Your task to perform on an android device: Search for the new Nike Air Max 270 on Nike.com Image 0: 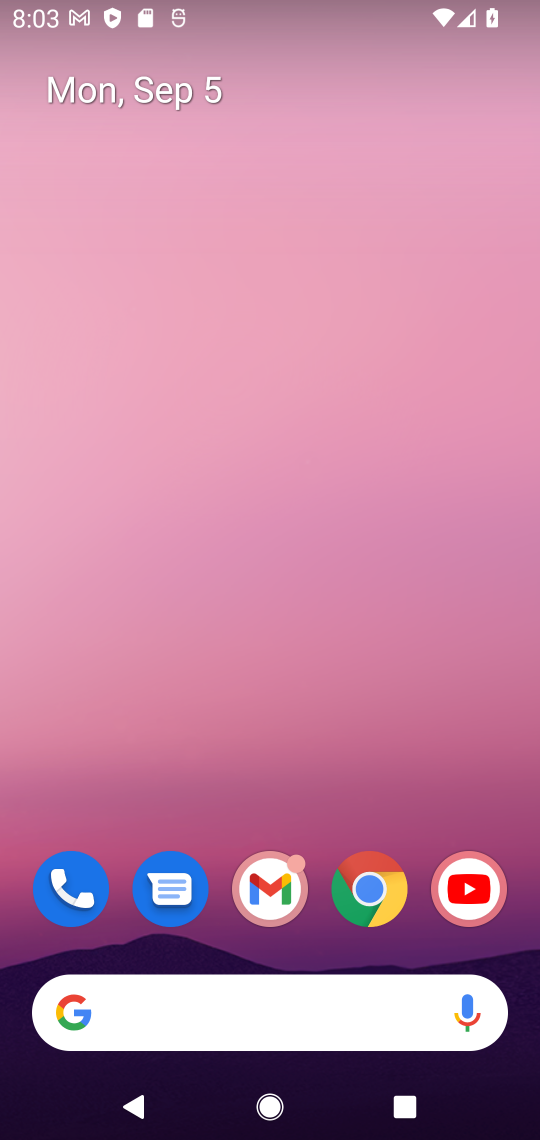
Step 0: click (238, 1015)
Your task to perform on an android device: Search for the new Nike Air Max 270 on Nike.com Image 1: 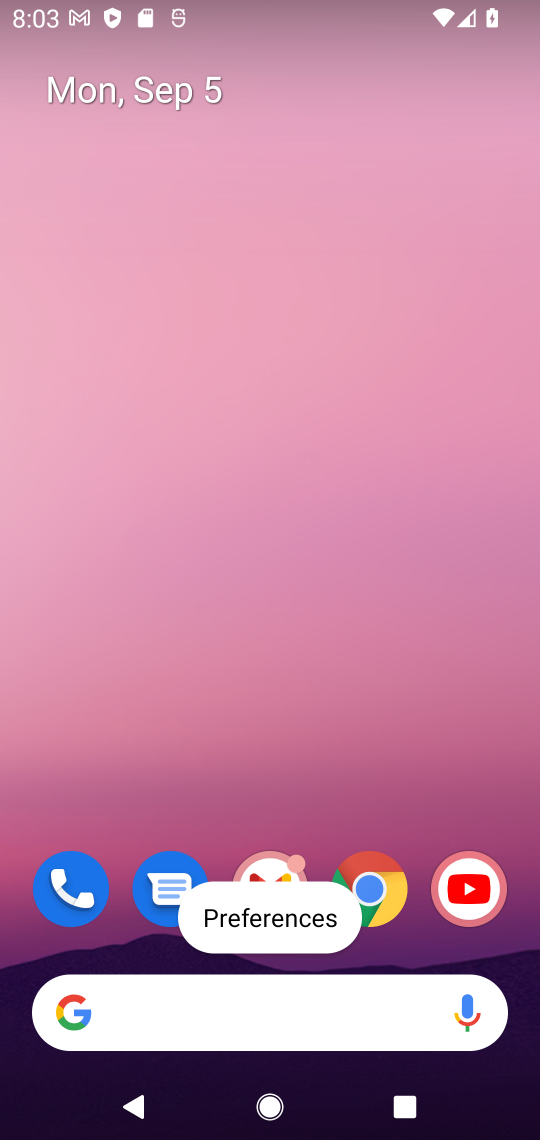
Step 1: click (238, 1015)
Your task to perform on an android device: Search for the new Nike Air Max 270 on Nike.com Image 2: 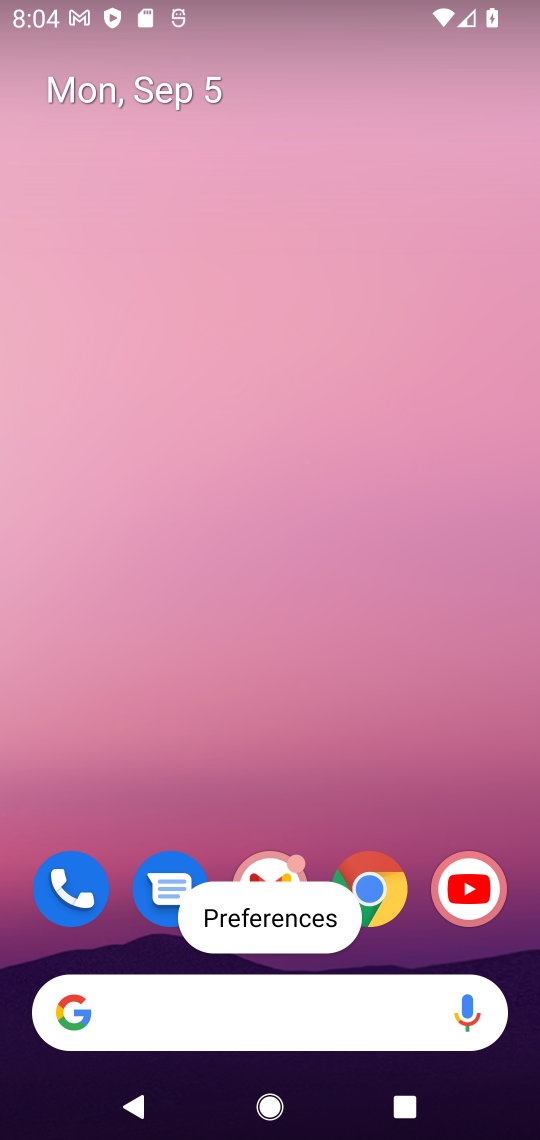
Step 2: click (238, 1015)
Your task to perform on an android device: Search for the new Nike Air Max 270 on Nike.com Image 3: 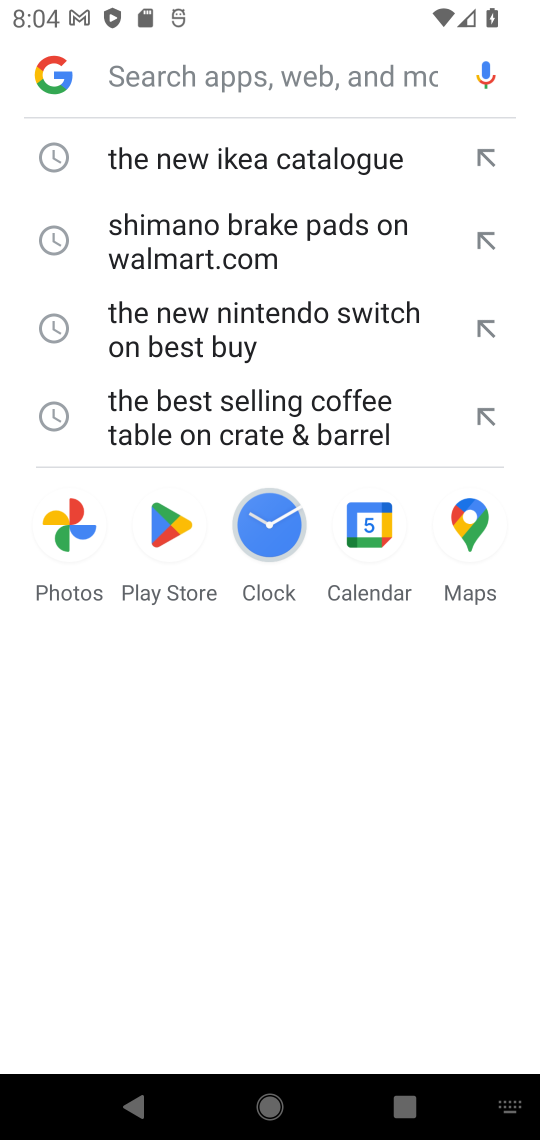
Step 3: type "the new Nike Air Max 270 on Nike.com"
Your task to perform on an android device: Search for the new Nike Air Max 270 on Nike.com Image 4: 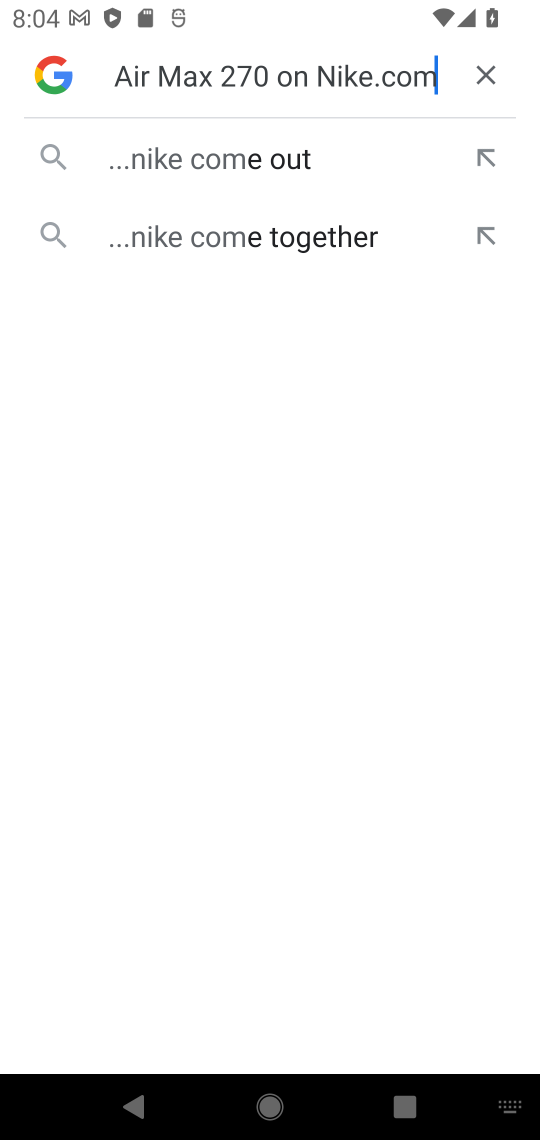
Step 4: click (203, 160)
Your task to perform on an android device: Search for the new Nike Air Max 270 on Nike.com Image 5: 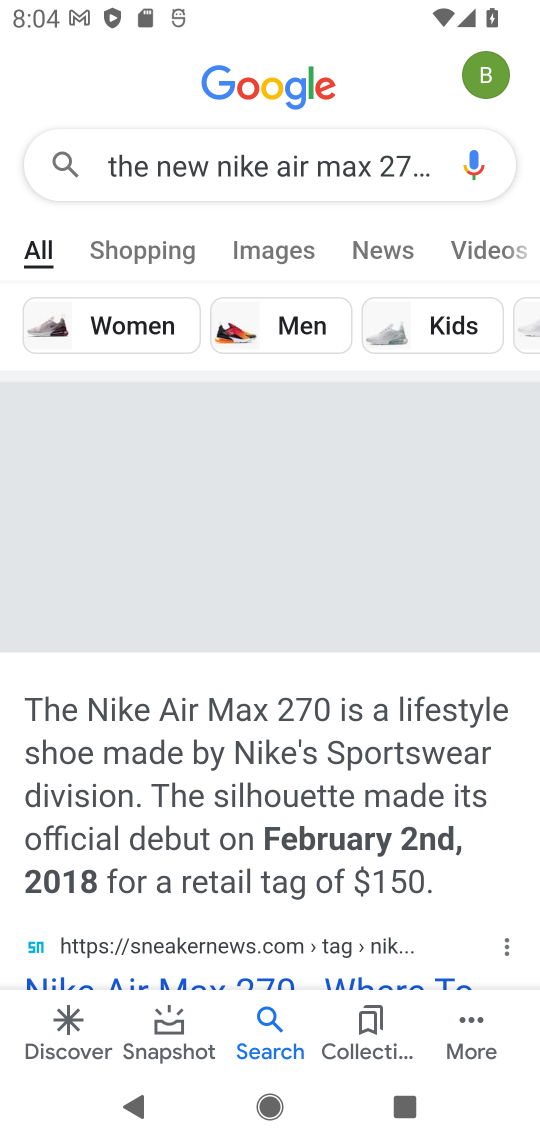
Step 5: task complete